Your task to perform on an android device: Search for pizza restaurants on Maps Image 0: 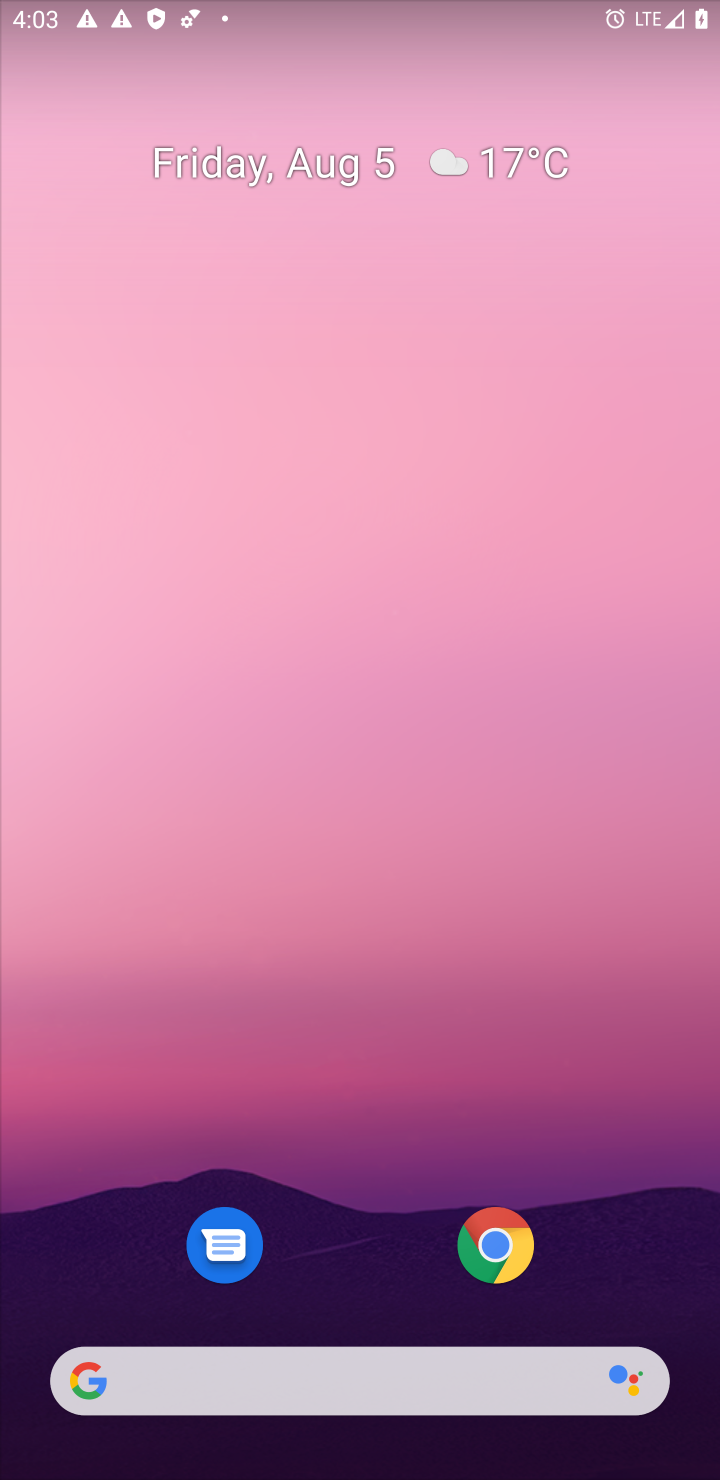
Step 0: drag from (128, 1454) to (617, 184)
Your task to perform on an android device: Search for pizza restaurants on Maps Image 1: 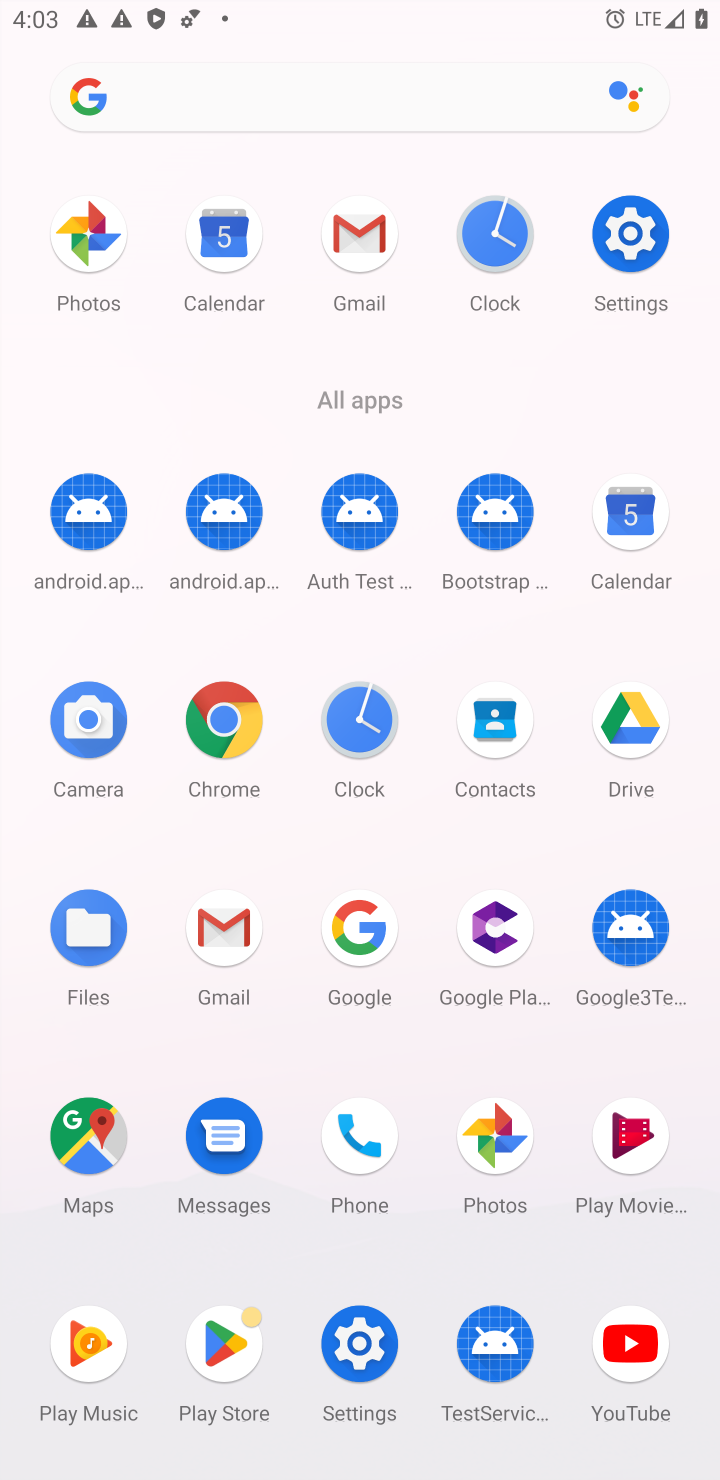
Step 1: click (93, 1148)
Your task to perform on an android device: Search for pizza restaurants on Maps Image 2: 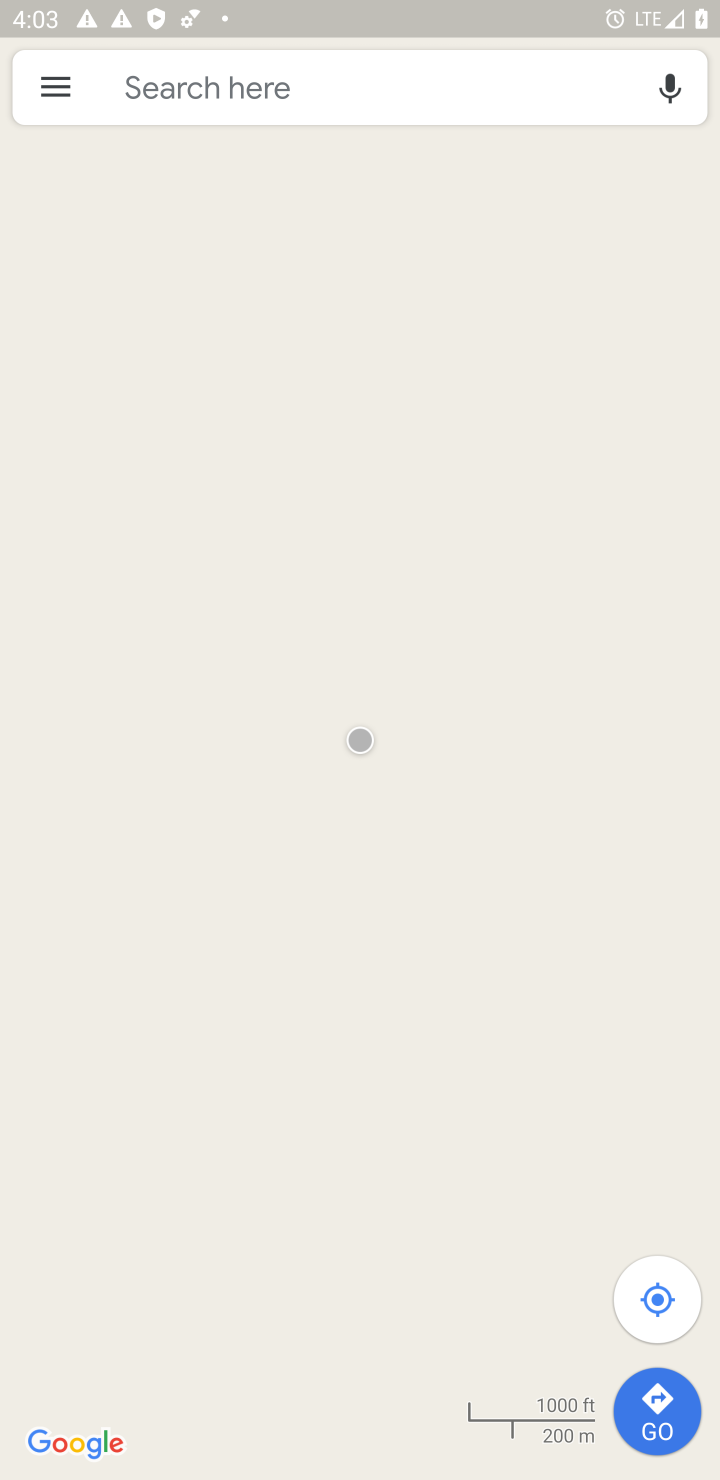
Step 2: click (168, 86)
Your task to perform on an android device: Search for pizza restaurants on Maps Image 3: 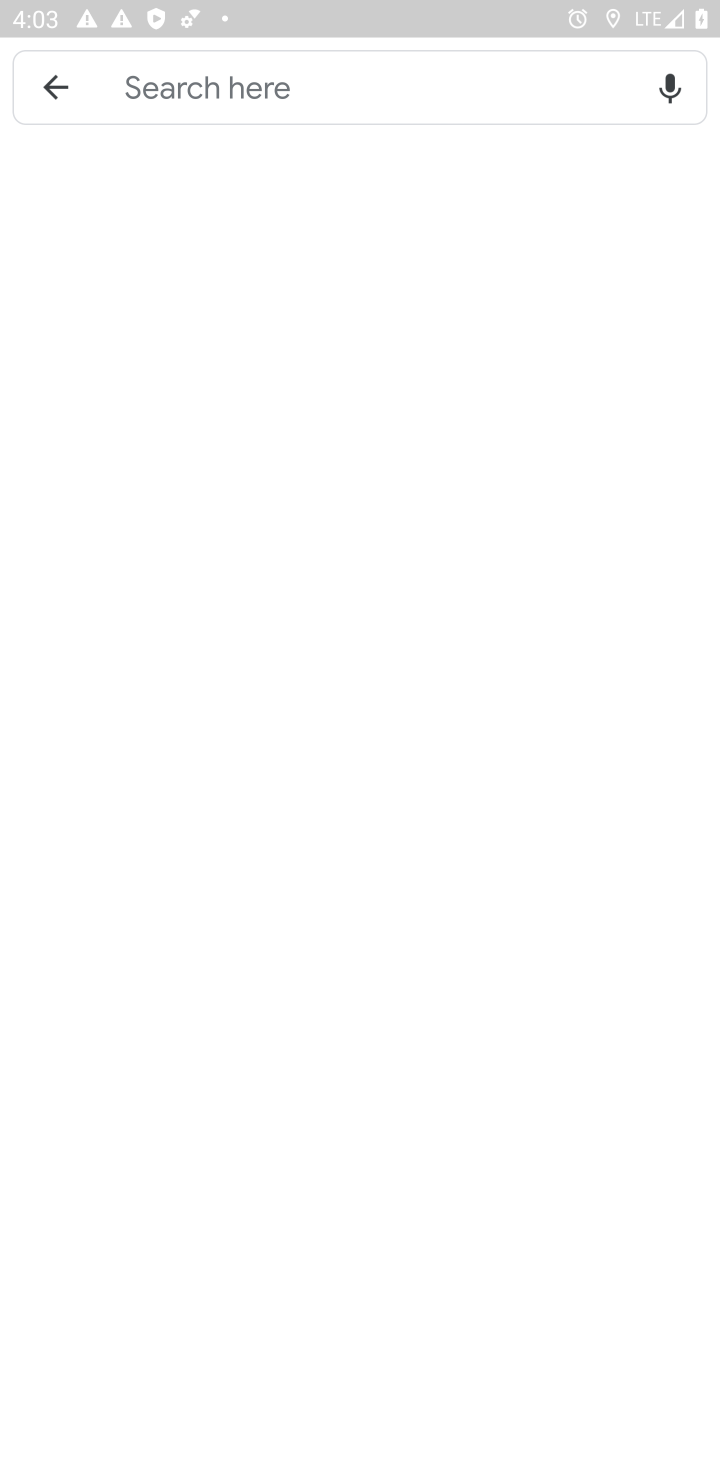
Step 3: click (165, 76)
Your task to perform on an android device: Search for pizza restaurants on Maps Image 4: 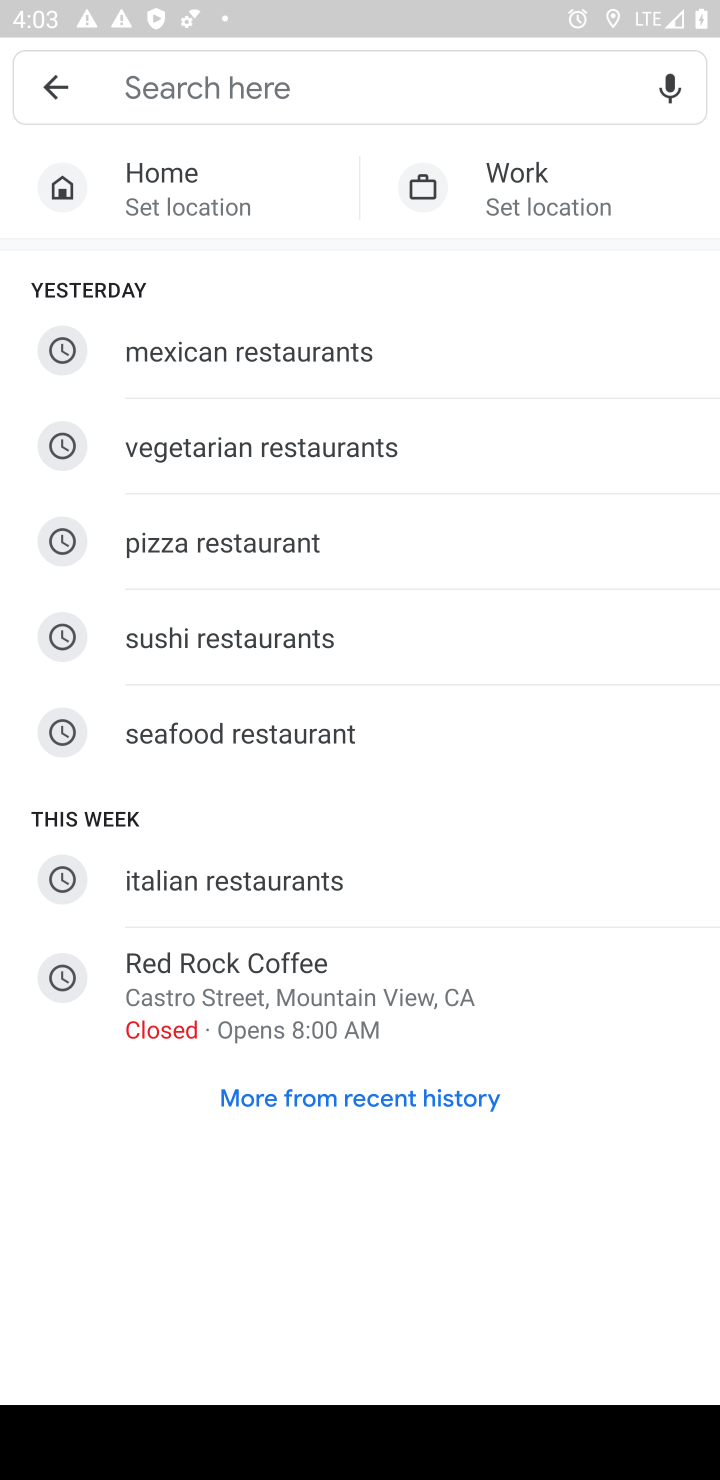
Step 4: type "pizza restaurants"
Your task to perform on an android device: Search for pizza restaurants on Maps Image 5: 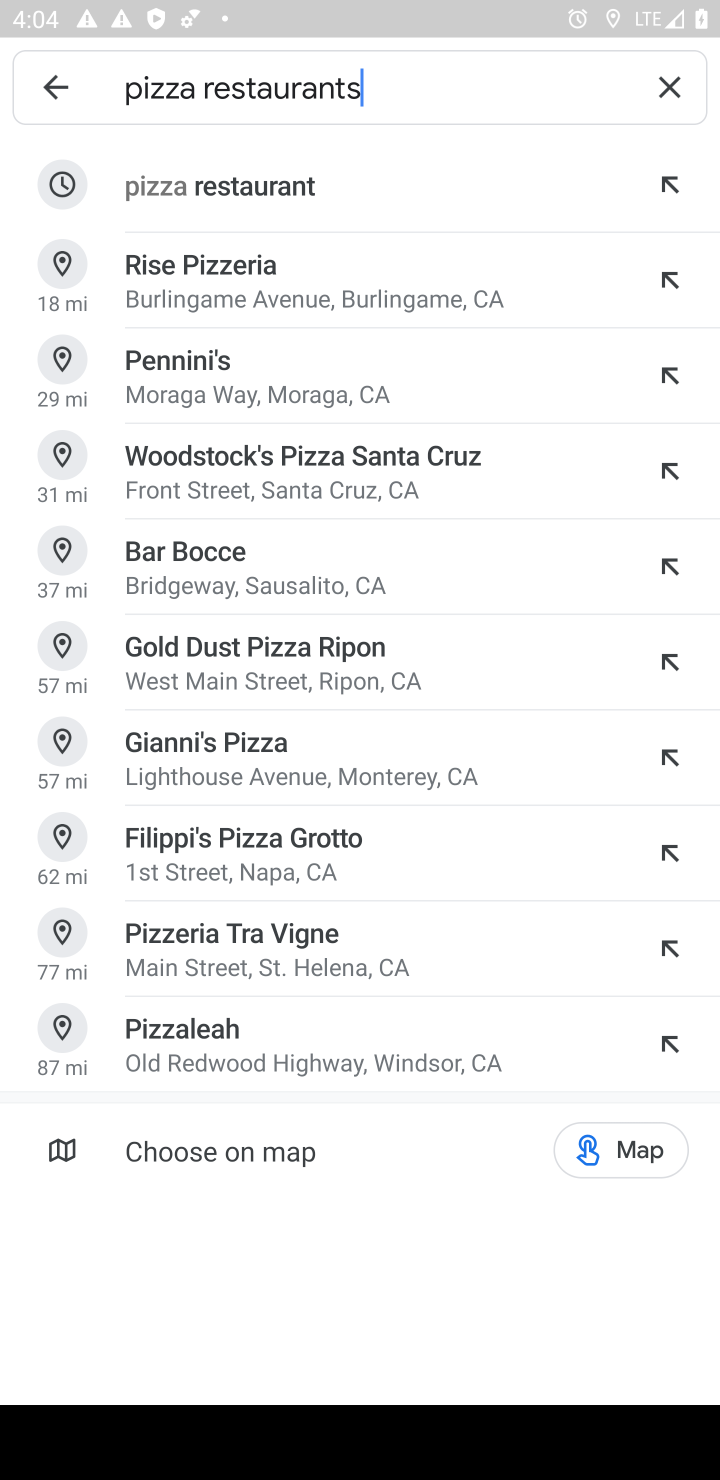
Step 5: click (217, 189)
Your task to perform on an android device: Search for pizza restaurants on Maps Image 6: 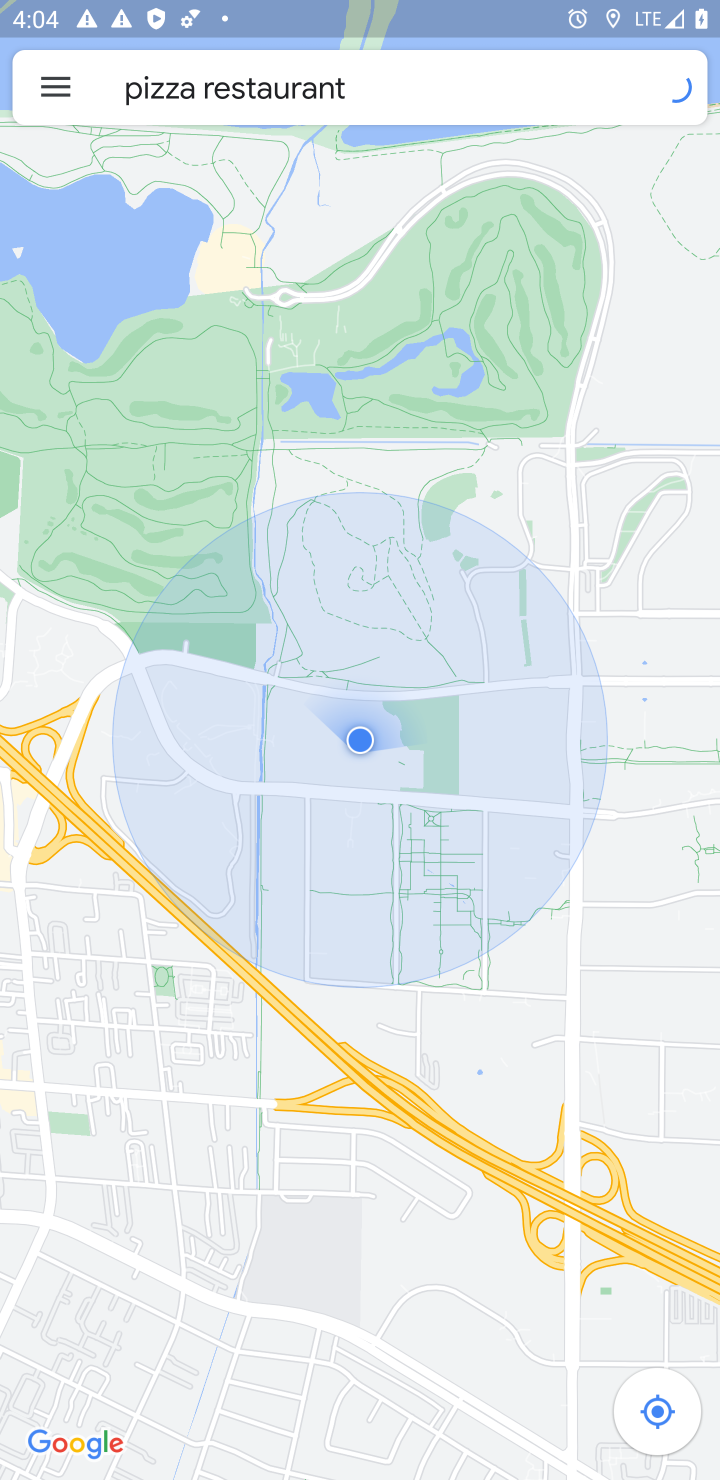
Step 6: task complete